Your task to perform on an android device: toggle show notifications on the lock screen Image 0: 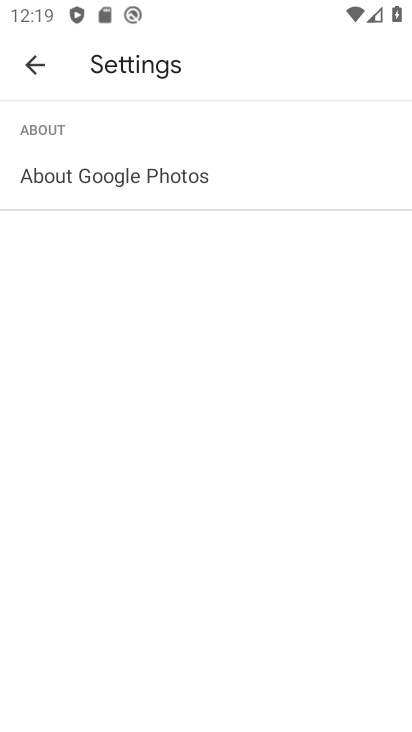
Step 0: press home button
Your task to perform on an android device: toggle show notifications on the lock screen Image 1: 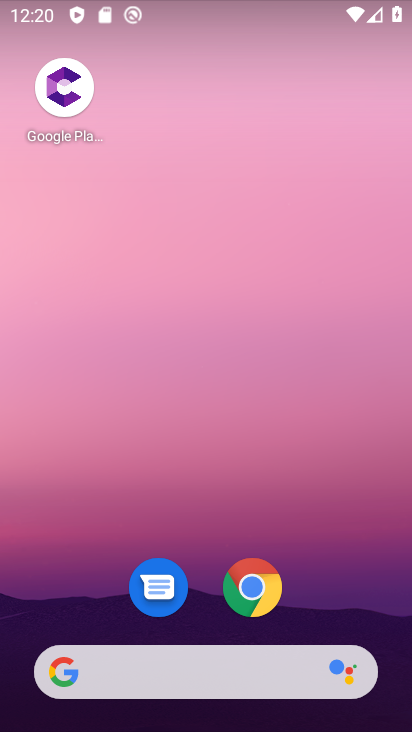
Step 1: drag from (225, 720) to (252, 236)
Your task to perform on an android device: toggle show notifications on the lock screen Image 2: 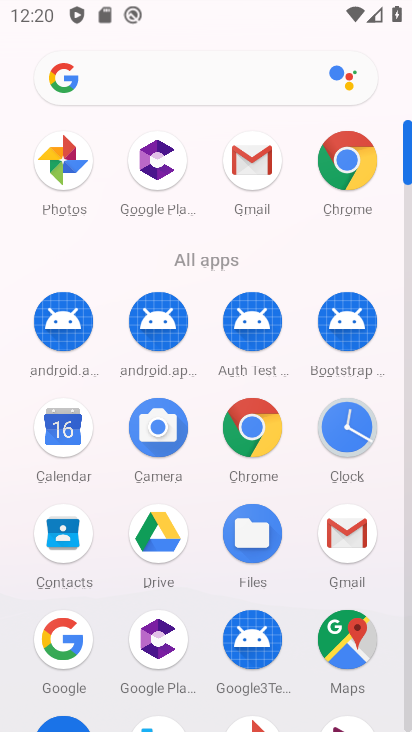
Step 2: drag from (214, 691) to (221, 347)
Your task to perform on an android device: toggle show notifications on the lock screen Image 3: 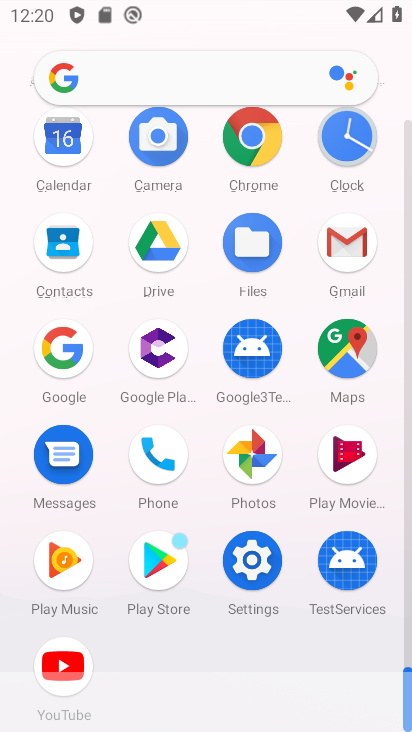
Step 3: drag from (198, 199) to (197, 625)
Your task to perform on an android device: toggle show notifications on the lock screen Image 4: 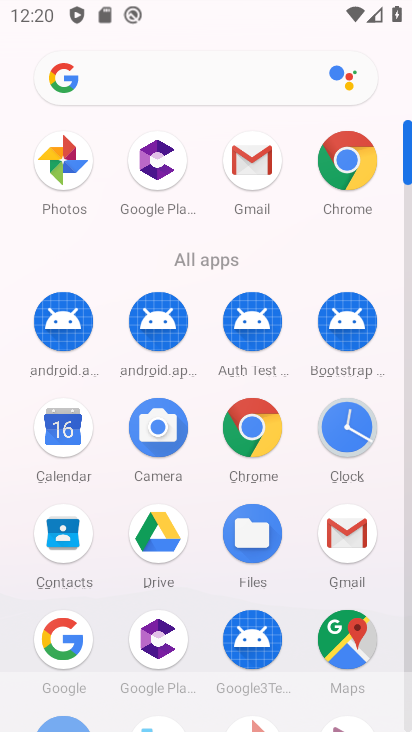
Step 4: drag from (197, 622) to (216, 236)
Your task to perform on an android device: toggle show notifications on the lock screen Image 5: 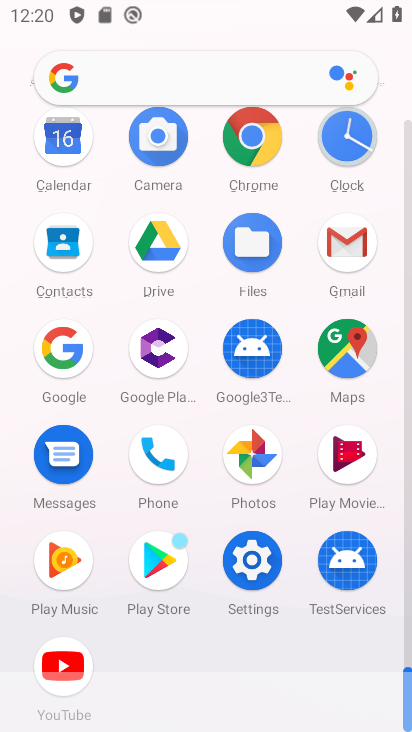
Step 5: click (256, 564)
Your task to perform on an android device: toggle show notifications on the lock screen Image 6: 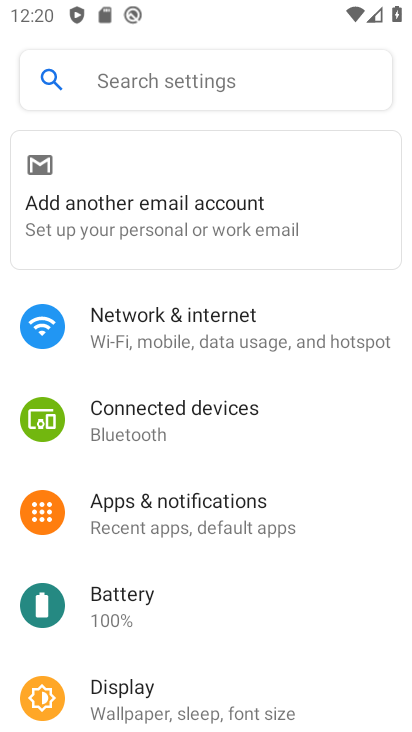
Step 6: click (194, 519)
Your task to perform on an android device: toggle show notifications on the lock screen Image 7: 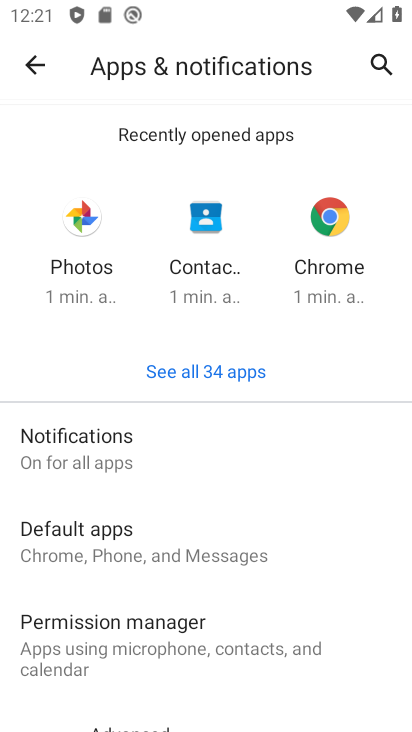
Step 7: click (63, 442)
Your task to perform on an android device: toggle show notifications on the lock screen Image 8: 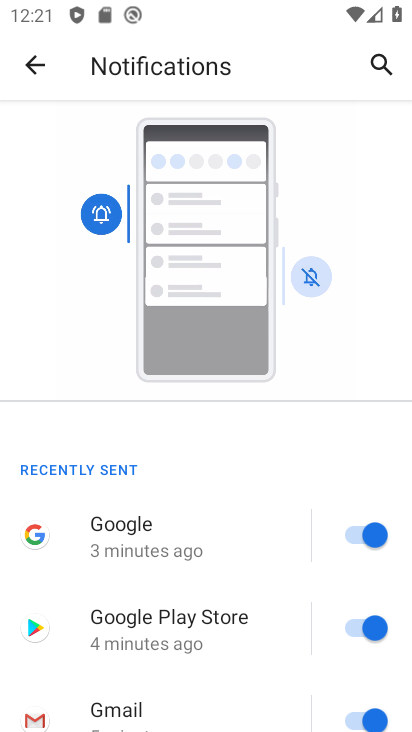
Step 8: drag from (243, 677) to (249, 327)
Your task to perform on an android device: toggle show notifications on the lock screen Image 9: 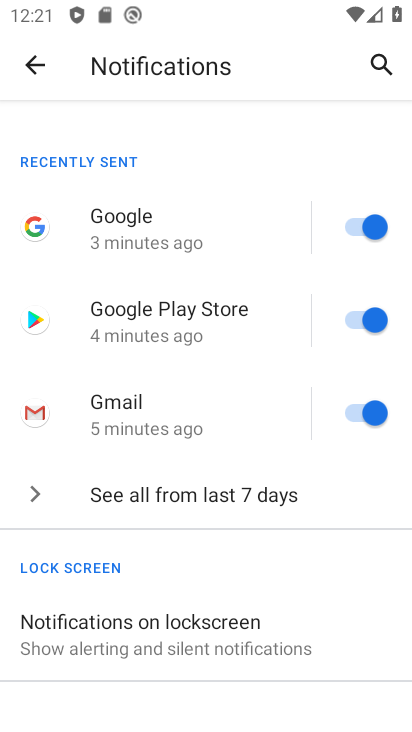
Step 9: drag from (208, 666) to (228, 324)
Your task to perform on an android device: toggle show notifications on the lock screen Image 10: 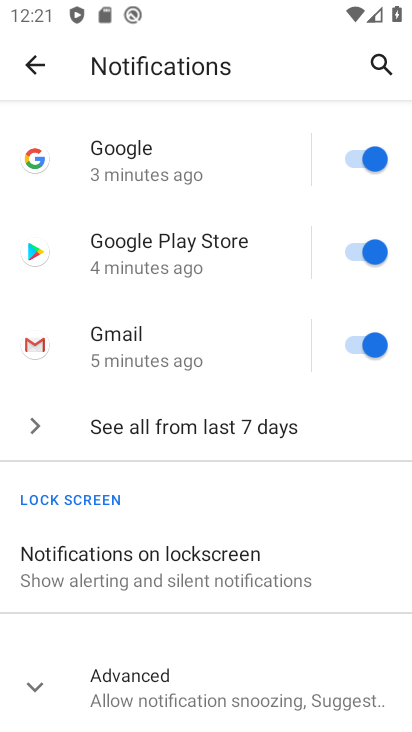
Step 10: click (173, 571)
Your task to perform on an android device: toggle show notifications on the lock screen Image 11: 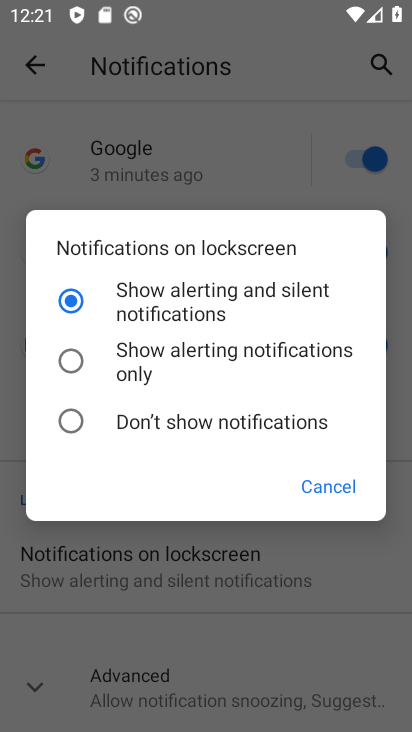
Step 11: click (69, 362)
Your task to perform on an android device: toggle show notifications on the lock screen Image 12: 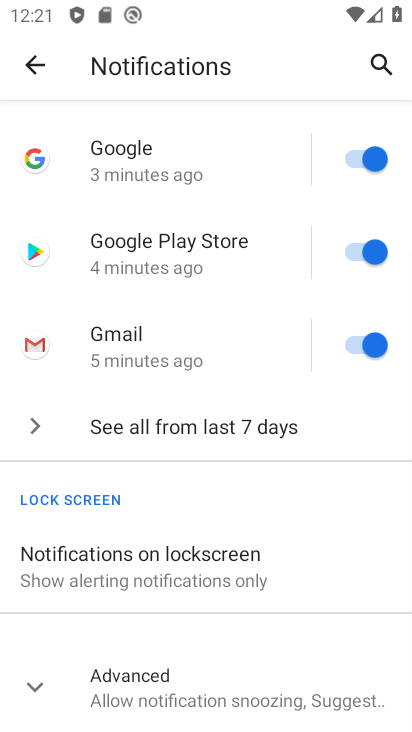
Step 12: task complete